Your task to perform on an android device: What's on my calendar tomorrow? Image 0: 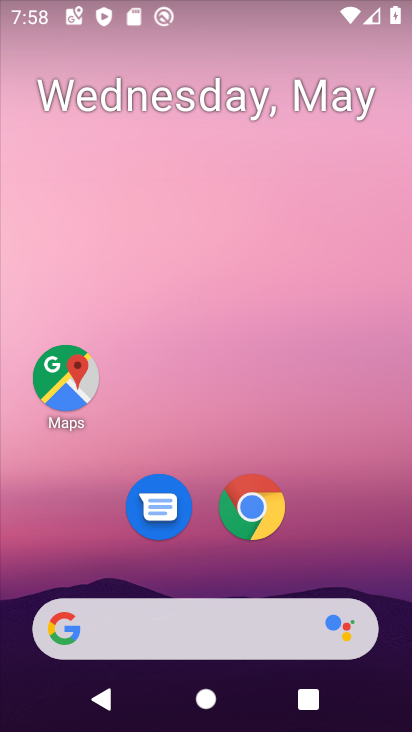
Step 0: drag from (333, 500) to (333, 136)
Your task to perform on an android device: What's on my calendar tomorrow? Image 1: 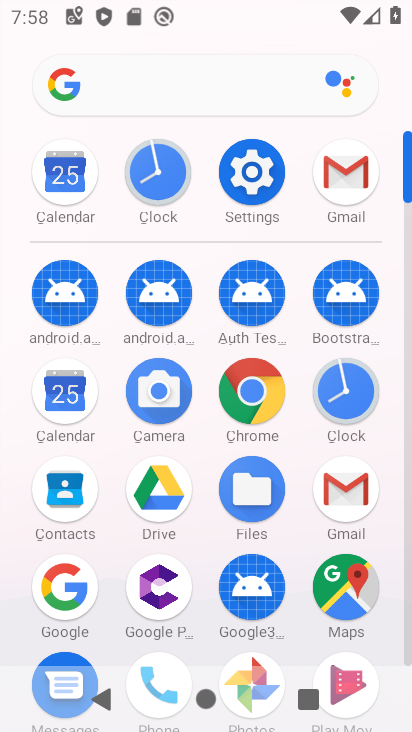
Step 1: click (75, 171)
Your task to perform on an android device: What's on my calendar tomorrow? Image 2: 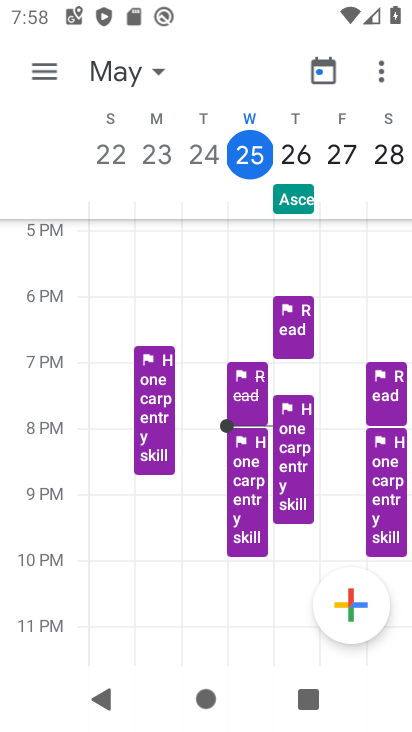
Step 2: click (293, 155)
Your task to perform on an android device: What's on my calendar tomorrow? Image 3: 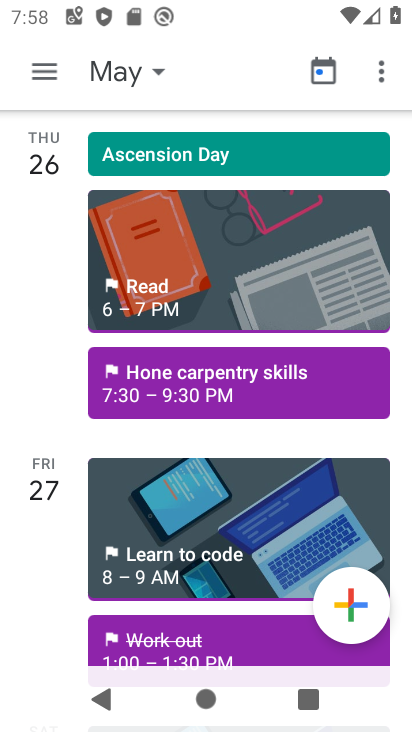
Step 3: task complete